Your task to perform on an android device: delete a single message in the gmail app Image 0: 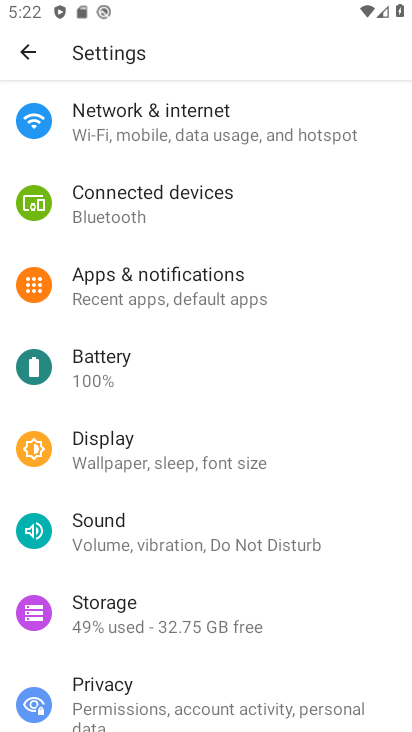
Step 0: press home button
Your task to perform on an android device: delete a single message in the gmail app Image 1: 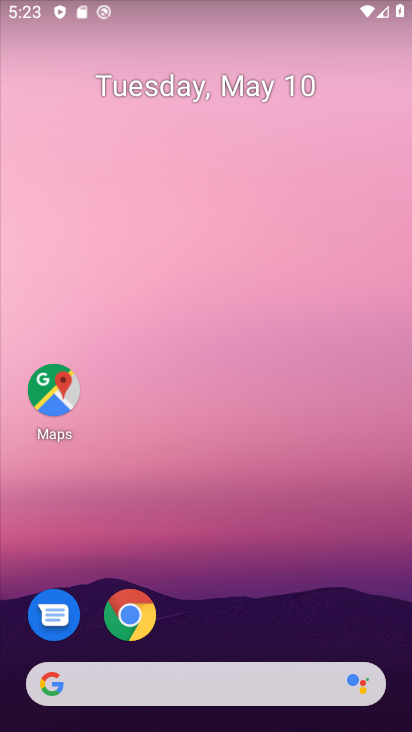
Step 1: drag from (225, 614) to (299, 125)
Your task to perform on an android device: delete a single message in the gmail app Image 2: 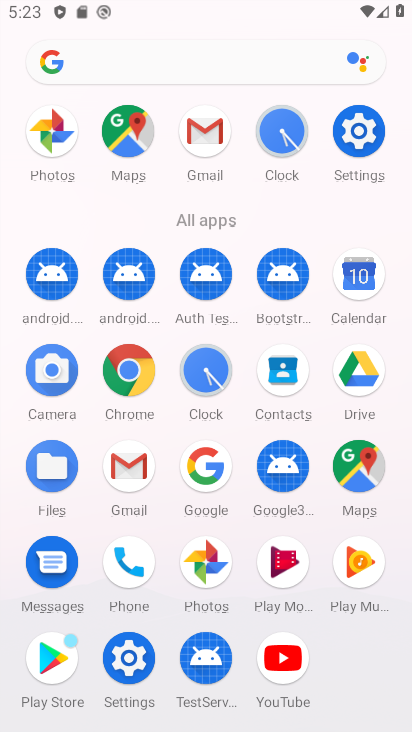
Step 2: click (133, 483)
Your task to perform on an android device: delete a single message in the gmail app Image 3: 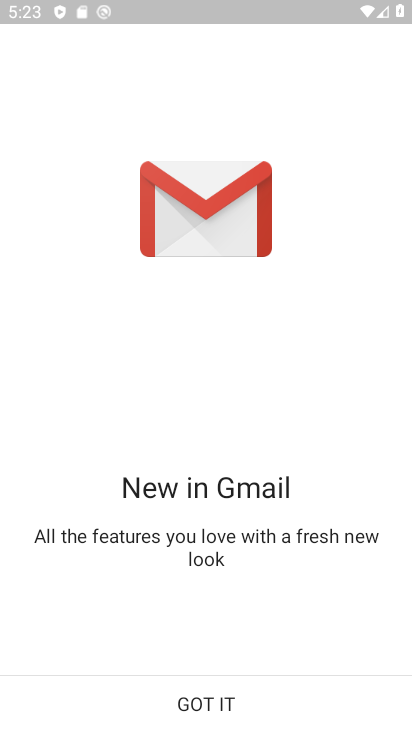
Step 3: click (220, 704)
Your task to perform on an android device: delete a single message in the gmail app Image 4: 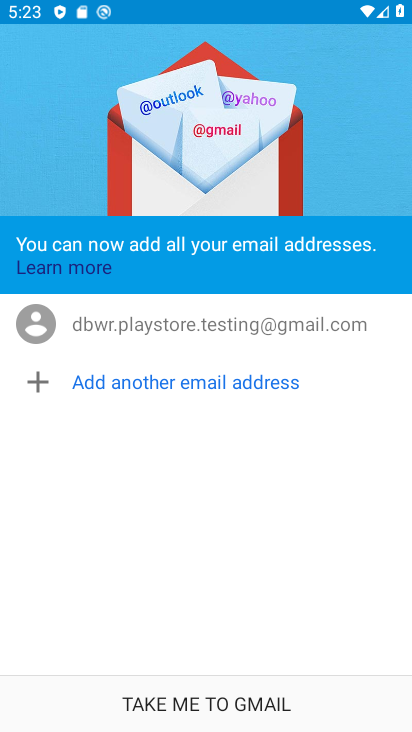
Step 4: click (213, 703)
Your task to perform on an android device: delete a single message in the gmail app Image 5: 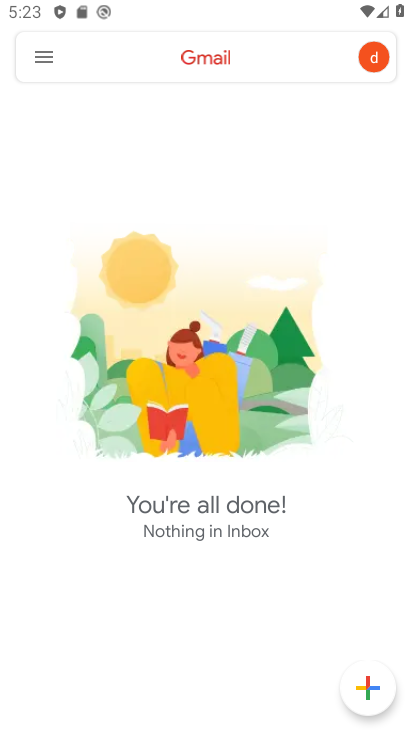
Step 5: click (48, 62)
Your task to perform on an android device: delete a single message in the gmail app Image 6: 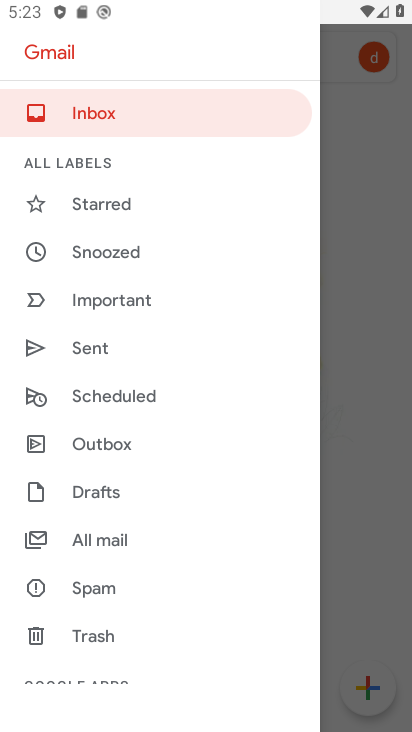
Step 6: click (106, 546)
Your task to perform on an android device: delete a single message in the gmail app Image 7: 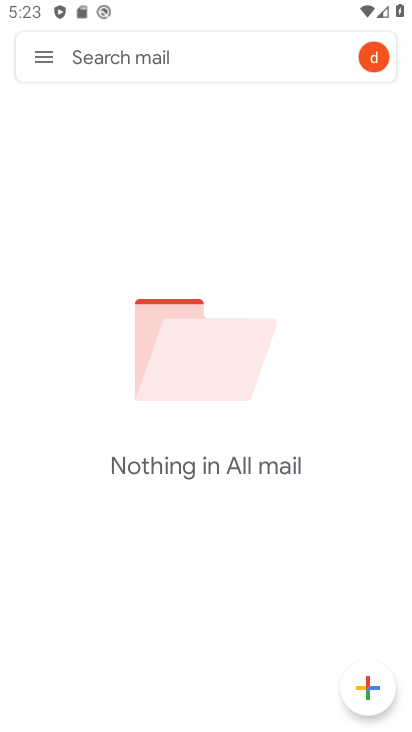
Step 7: task complete